Your task to perform on an android device: Open calendar and show me the third week of next month Image 0: 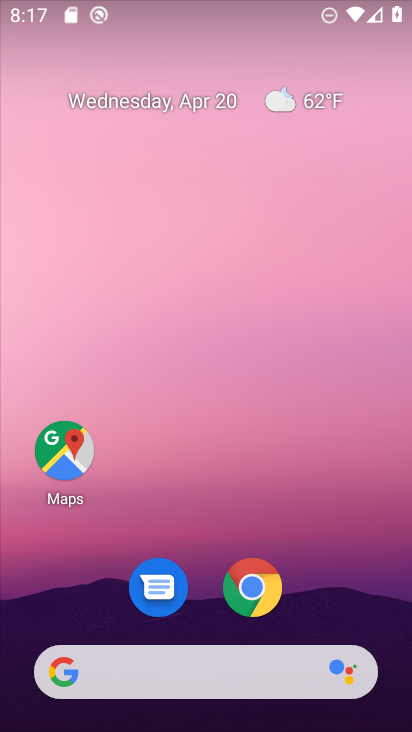
Step 0: drag from (361, 556) to (326, 0)
Your task to perform on an android device: Open calendar and show me the third week of next month Image 1: 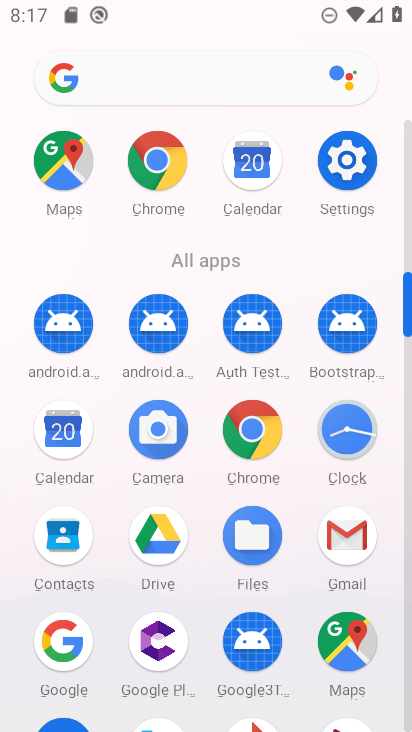
Step 1: click (75, 444)
Your task to perform on an android device: Open calendar and show me the third week of next month Image 2: 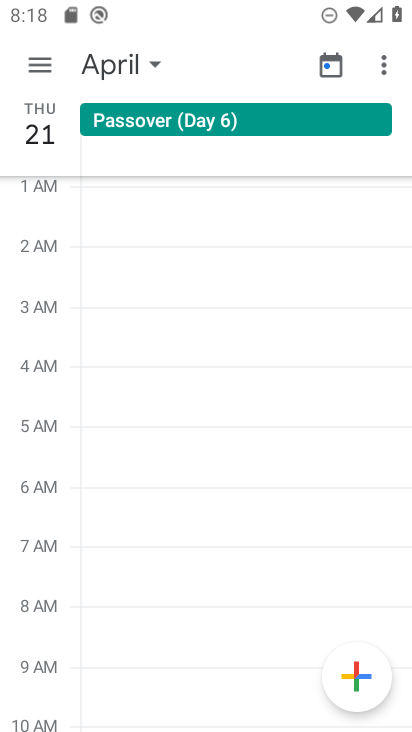
Step 2: click (129, 58)
Your task to perform on an android device: Open calendar and show me the third week of next month Image 3: 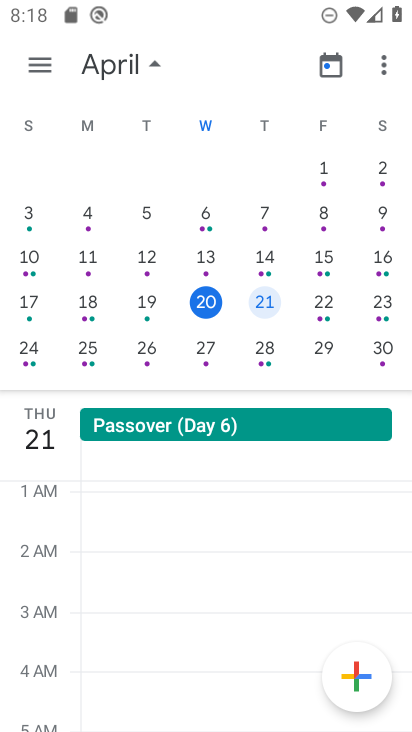
Step 3: drag from (355, 290) to (9, 242)
Your task to perform on an android device: Open calendar and show me the third week of next month Image 4: 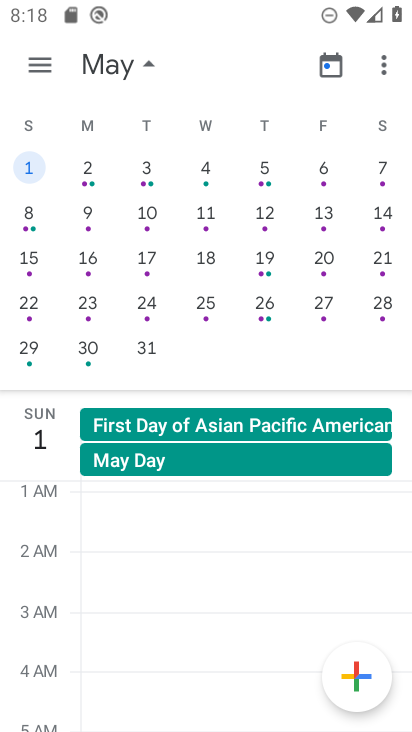
Step 4: click (97, 259)
Your task to perform on an android device: Open calendar and show me the third week of next month Image 5: 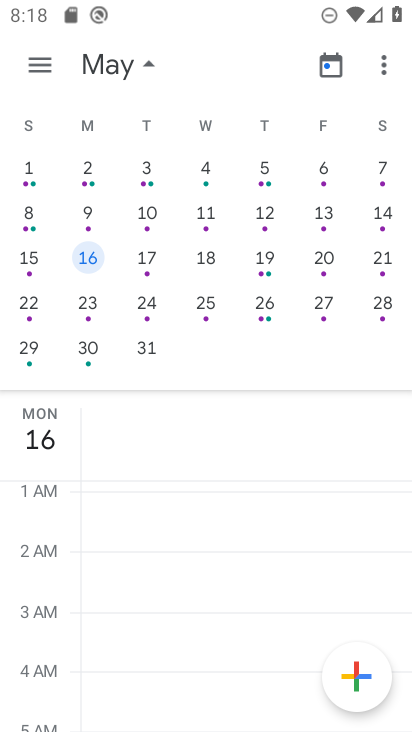
Step 5: click (34, 67)
Your task to perform on an android device: Open calendar and show me the third week of next month Image 6: 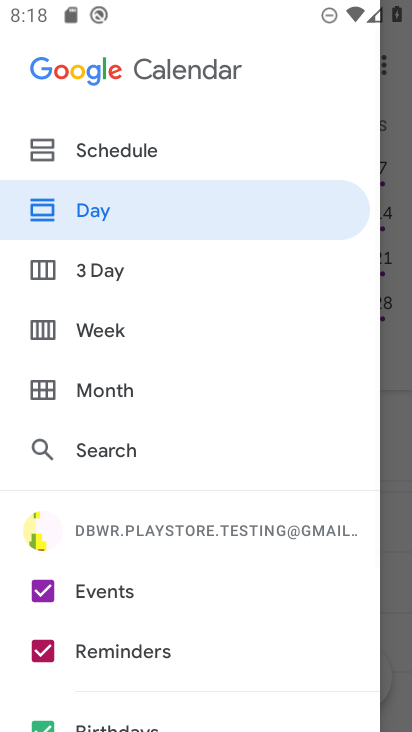
Step 6: click (112, 338)
Your task to perform on an android device: Open calendar and show me the third week of next month Image 7: 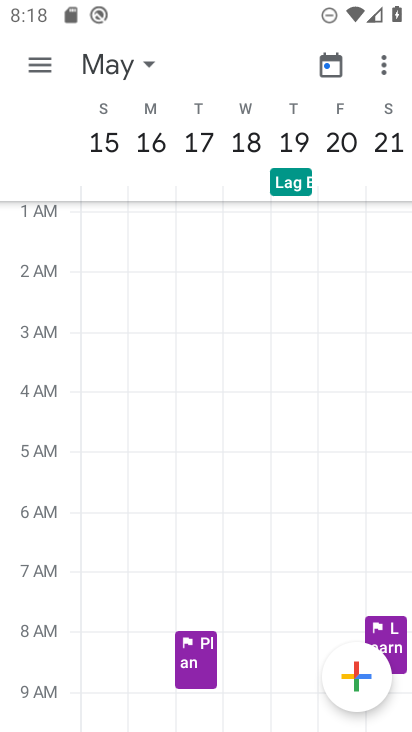
Step 7: task complete